Your task to perform on an android device: Add "asus rog" to the cart on ebay.com, then select checkout. Image 0: 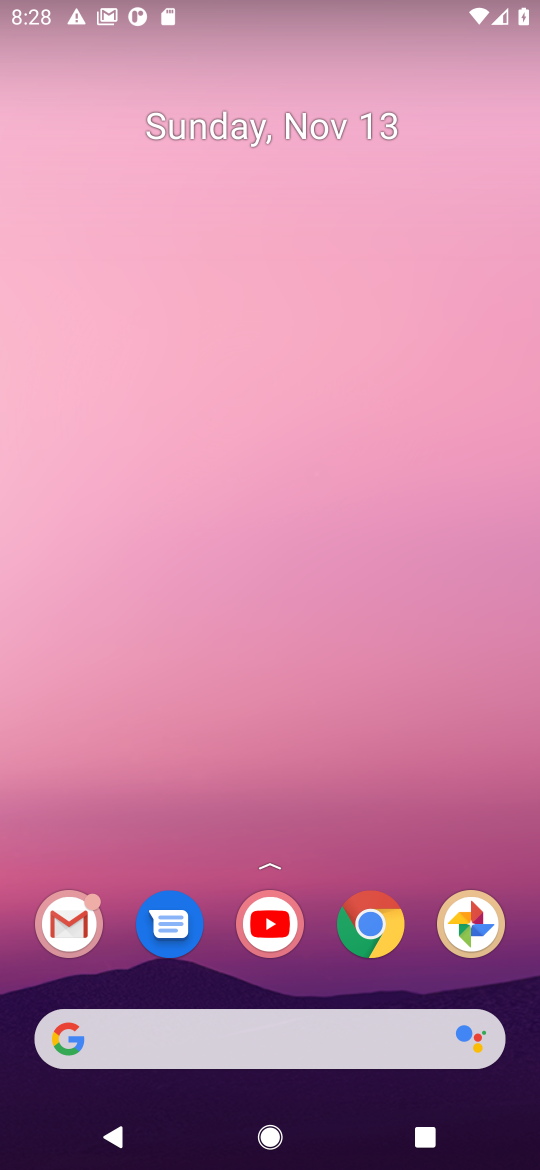
Step 0: click (381, 928)
Your task to perform on an android device: Add "asus rog" to the cart on ebay.com, then select checkout. Image 1: 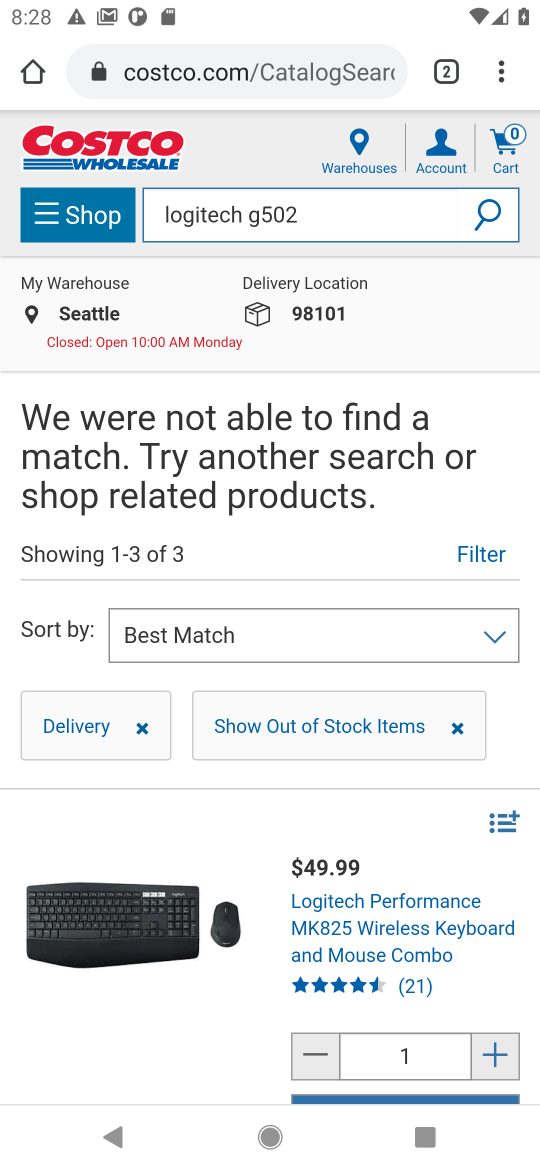
Step 1: click (221, 64)
Your task to perform on an android device: Add "asus rog" to the cart on ebay.com, then select checkout. Image 2: 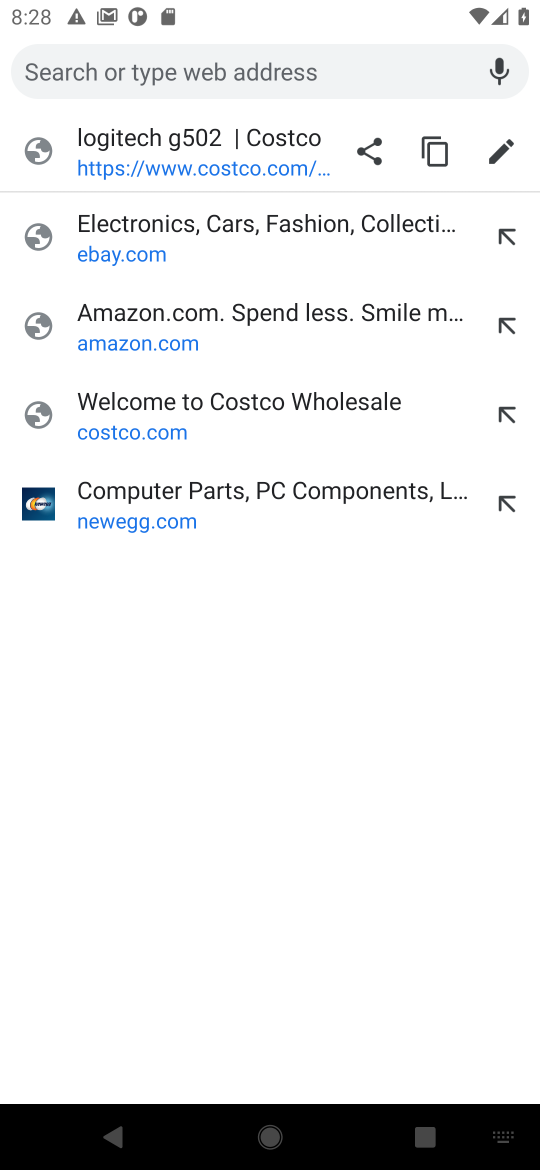
Step 2: click (166, 239)
Your task to perform on an android device: Add "asus rog" to the cart on ebay.com, then select checkout. Image 3: 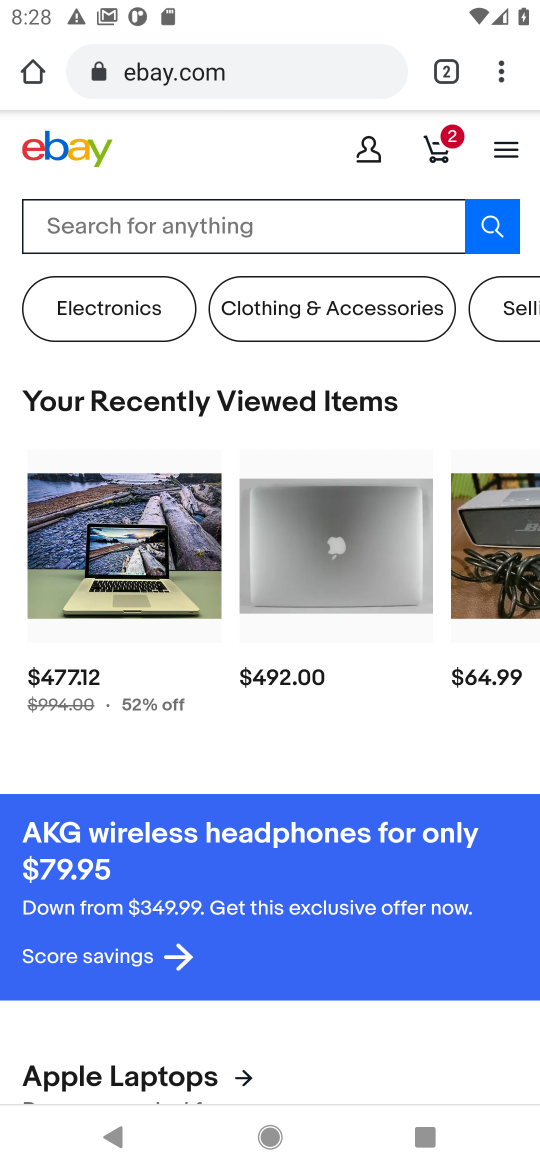
Step 3: click (269, 238)
Your task to perform on an android device: Add "asus rog" to the cart on ebay.com, then select checkout. Image 4: 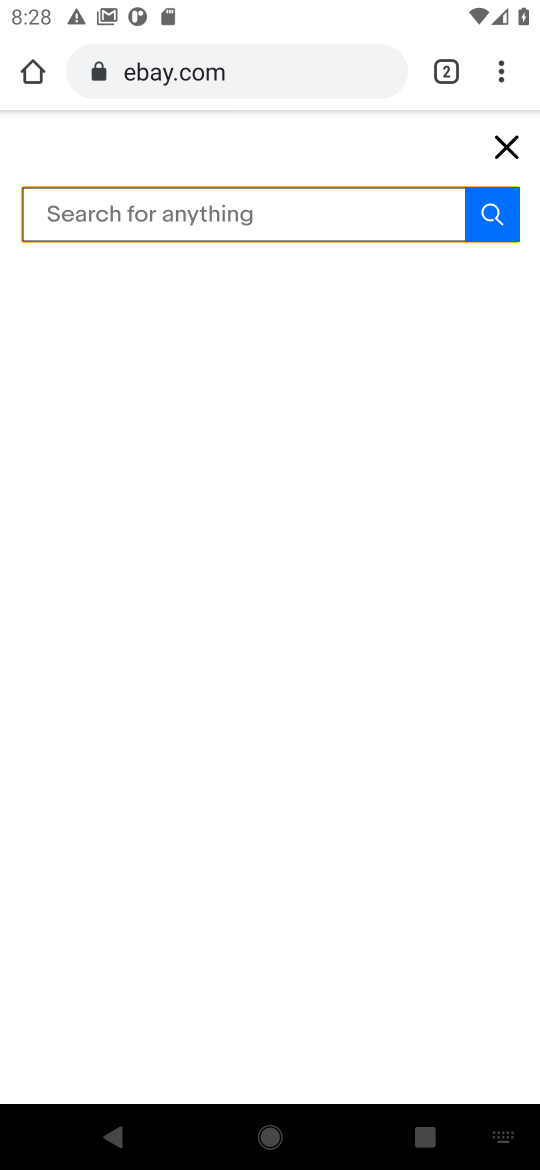
Step 4: type "asus rog"
Your task to perform on an android device: Add "asus rog" to the cart on ebay.com, then select checkout. Image 5: 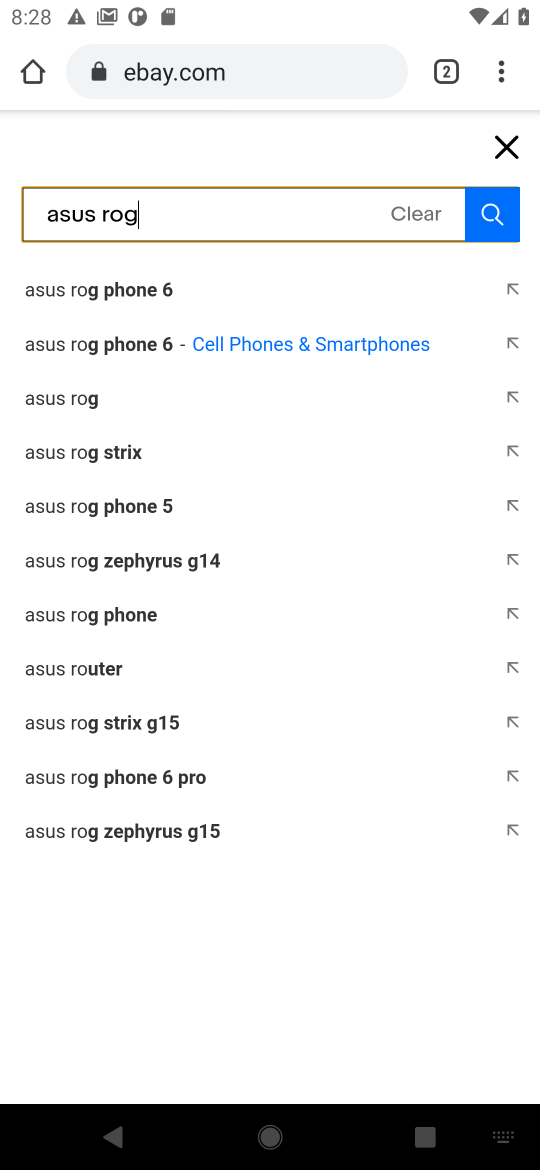
Step 5: click (90, 403)
Your task to perform on an android device: Add "asus rog" to the cart on ebay.com, then select checkout. Image 6: 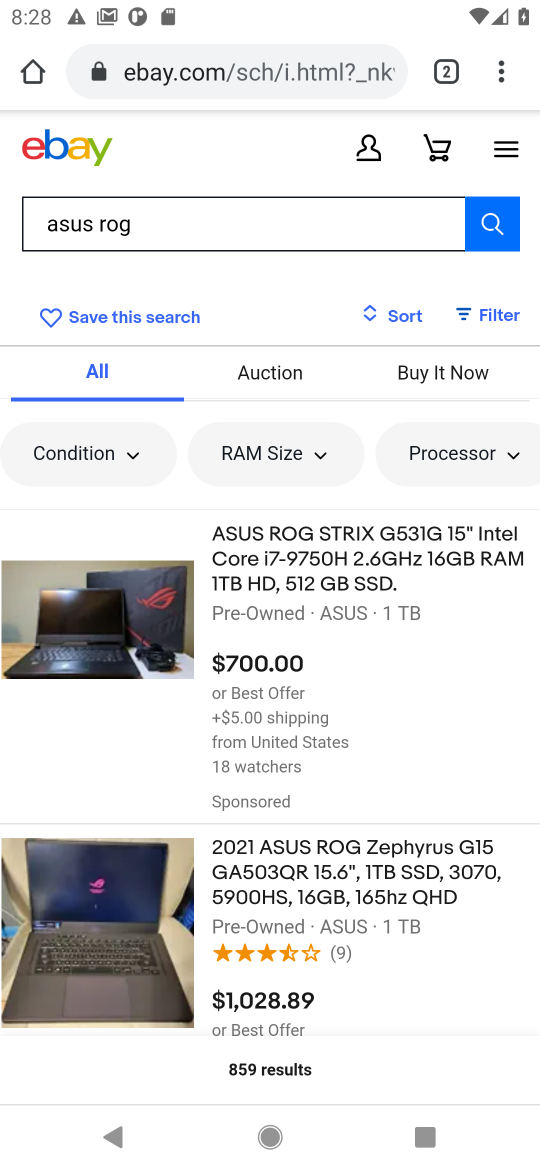
Step 6: click (103, 615)
Your task to perform on an android device: Add "asus rog" to the cart on ebay.com, then select checkout. Image 7: 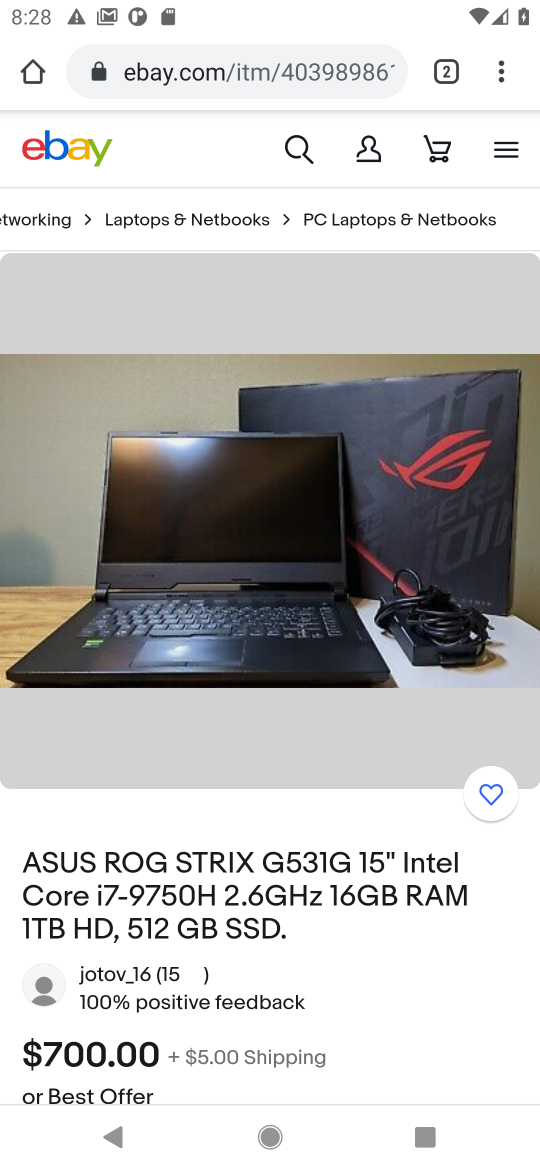
Step 7: drag from (214, 915) to (214, 480)
Your task to perform on an android device: Add "asus rog" to the cart on ebay.com, then select checkout. Image 8: 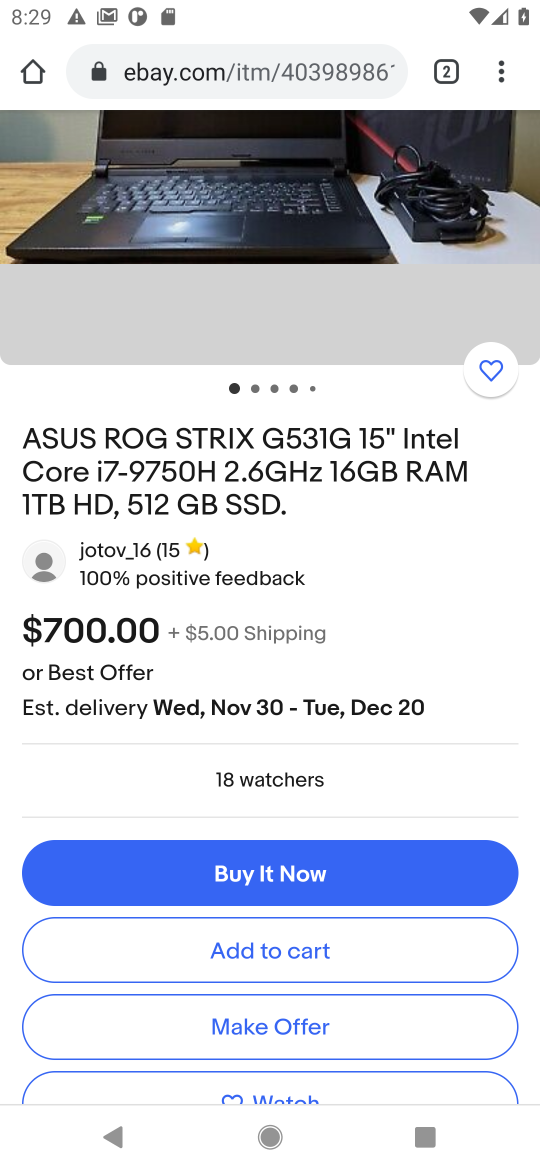
Step 8: click (275, 941)
Your task to perform on an android device: Add "asus rog" to the cart on ebay.com, then select checkout. Image 9: 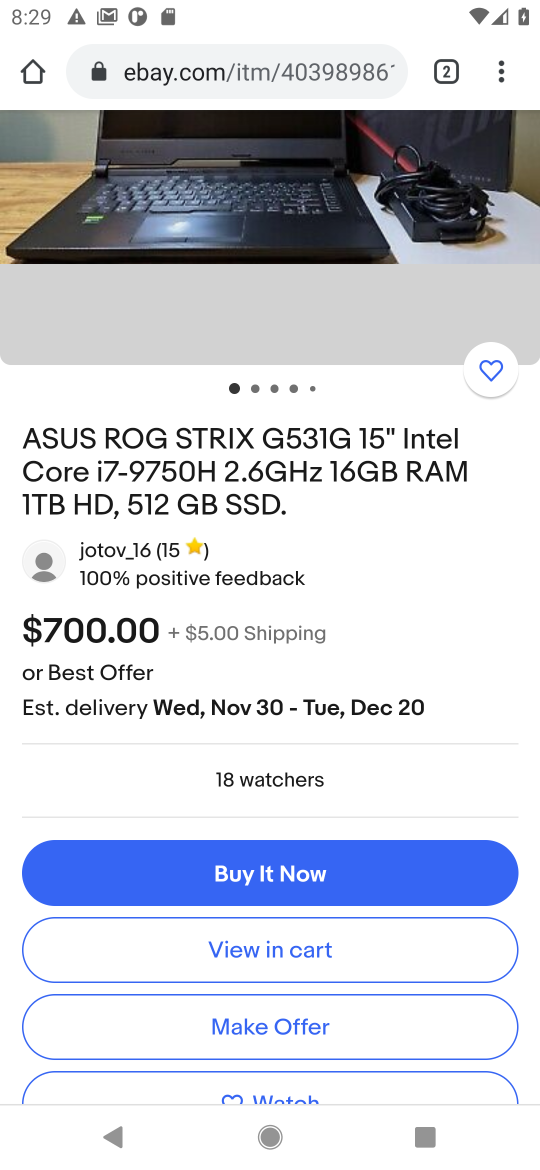
Step 9: click (275, 941)
Your task to perform on an android device: Add "asus rog" to the cart on ebay.com, then select checkout. Image 10: 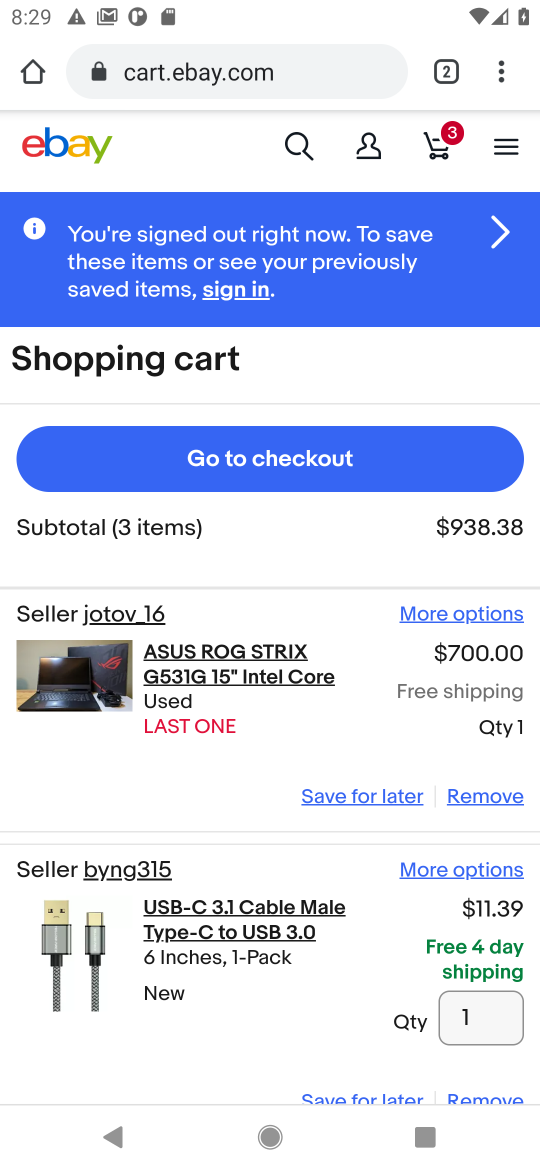
Step 10: click (205, 472)
Your task to perform on an android device: Add "asus rog" to the cart on ebay.com, then select checkout. Image 11: 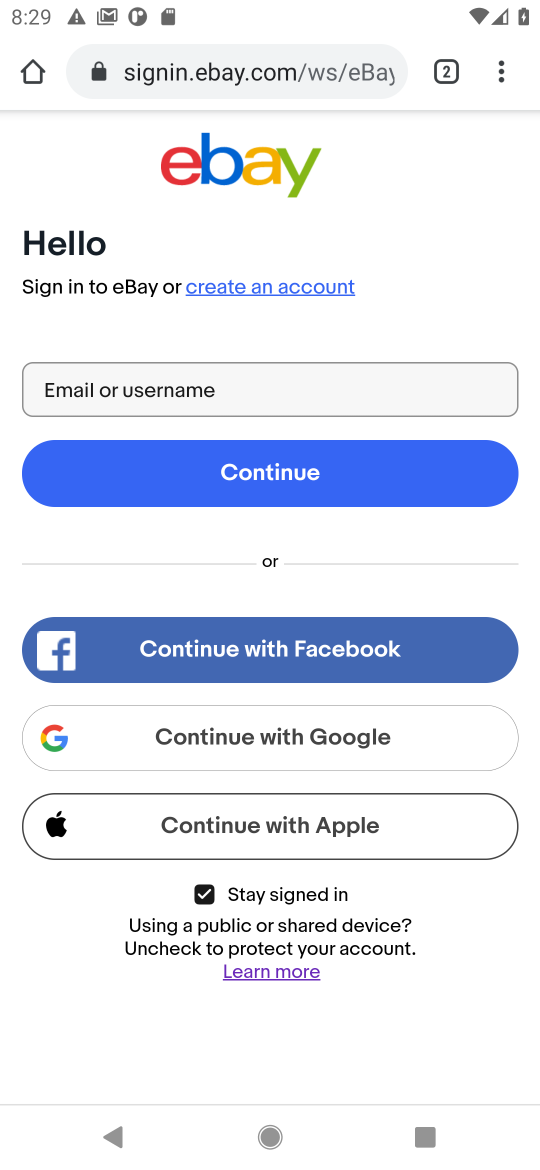
Step 11: task complete